Your task to perform on an android device: Open privacy settings Image 0: 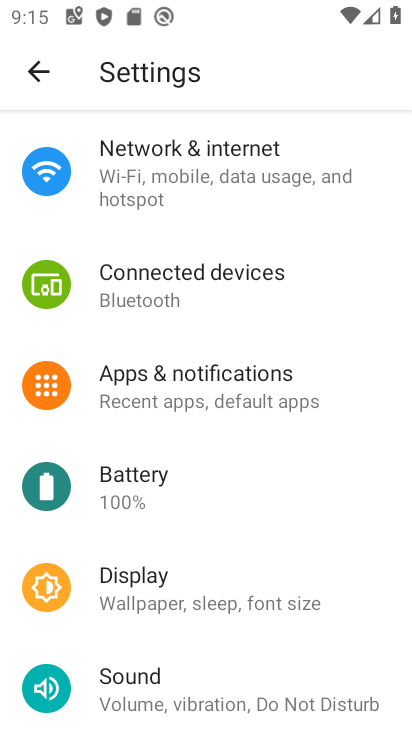
Step 0: drag from (218, 644) to (234, 202)
Your task to perform on an android device: Open privacy settings Image 1: 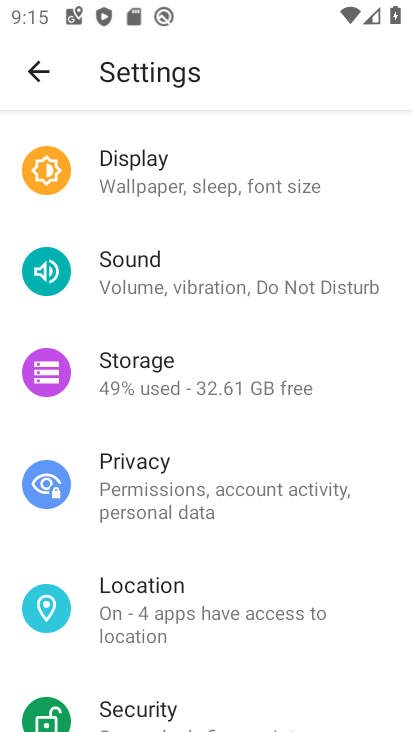
Step 1: click (150, 480)
Your task to perform on an android device: Open privacy settings Image 2: 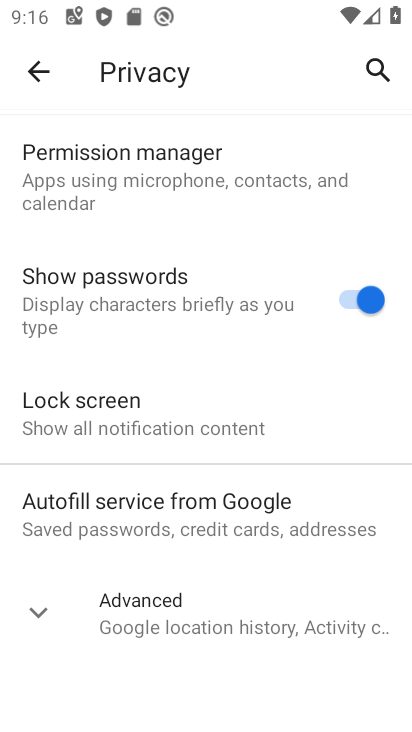
Step 2: task complete